Your task to perform on an android device: show emergency info Image 0: 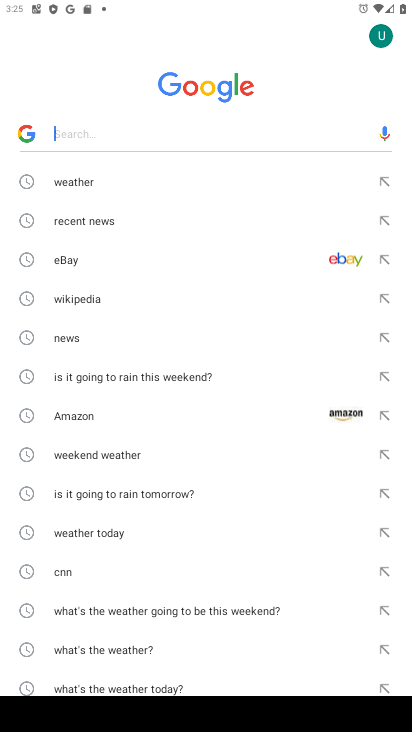
Step 0: press home button
Your task to perform on an android device: show emergency info Image 1: 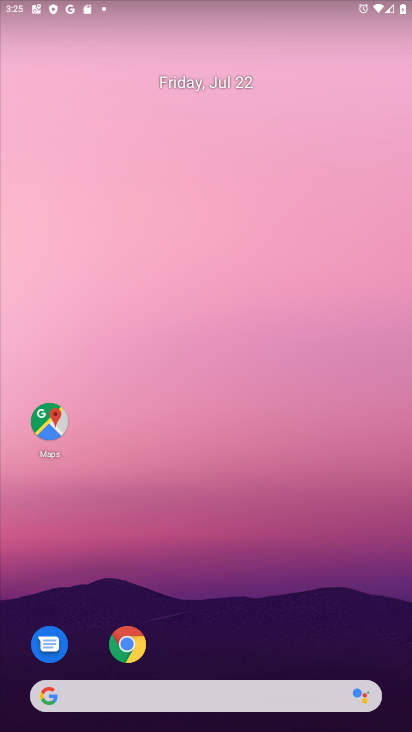
Step 1: drag from (257, 471) to (282, 149)
Your task to perform on an android device: show emergency info Image 2: 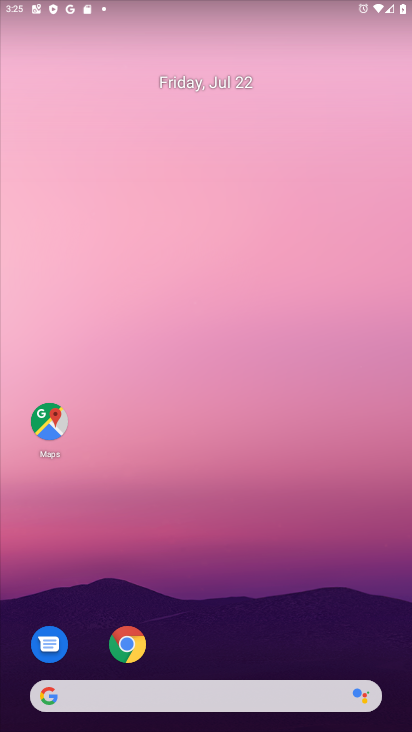
Step 2: drag from (227, 439) to (236, 224)
Your task to perform on an android device: show emergency info Image 3: 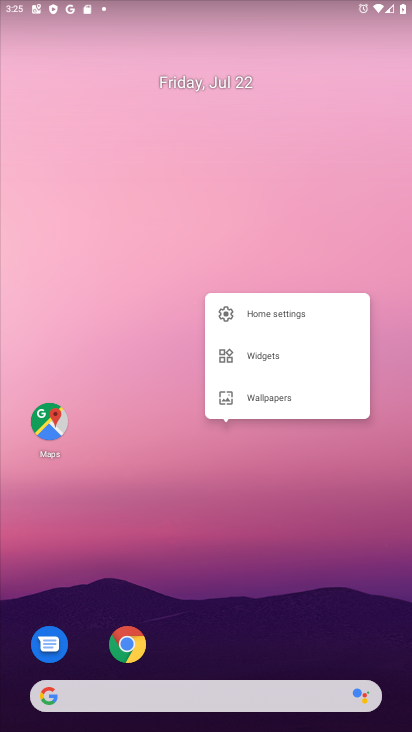
Step 3: click (216, 497)
Your task to perform on an android device: show emergency info Image 4: 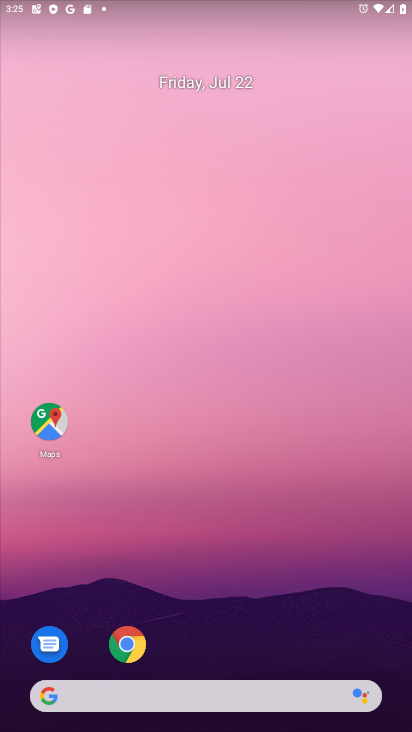
Step 4: drag from (216, 497) to (263, 98)
Your task to perform on an android device: show emergency info Image 5: 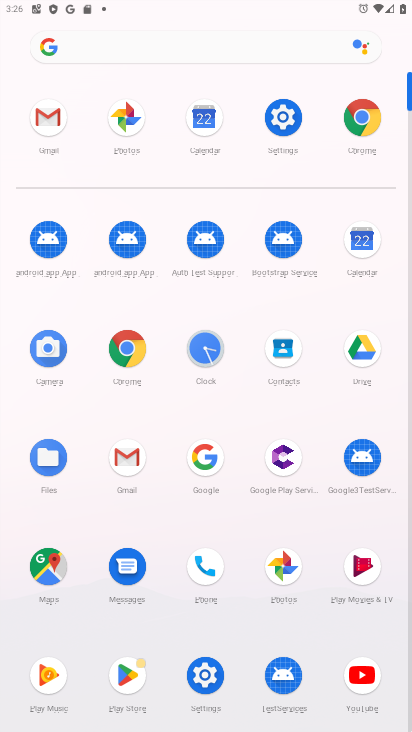
Step 5: click (289, 110)
Your task to perform on an android device: show emergency info Image 6: 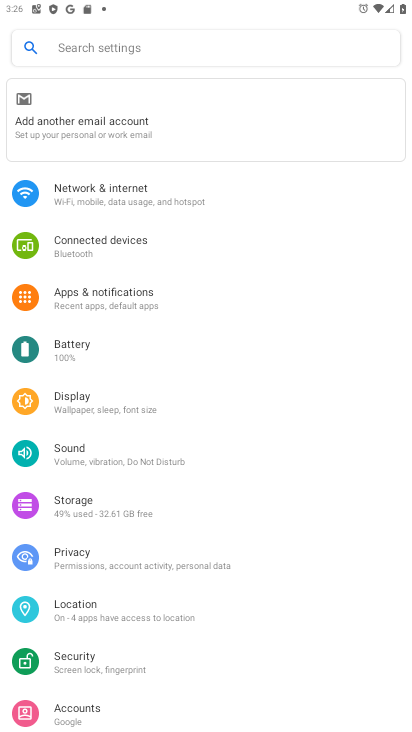
Step 6: task complete